Your task to perform on an android device: Search for pizza restaurants on Maps Image 0: 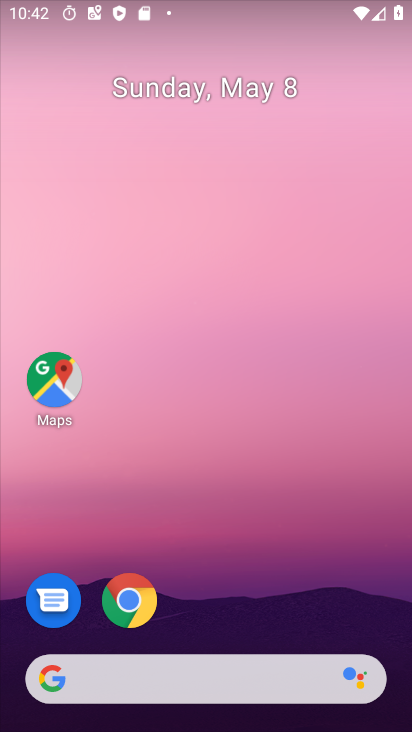
Step 0: click (25, 388)
Your task to perform on an android device: Search for pizza restaurants on Maps Image 1: 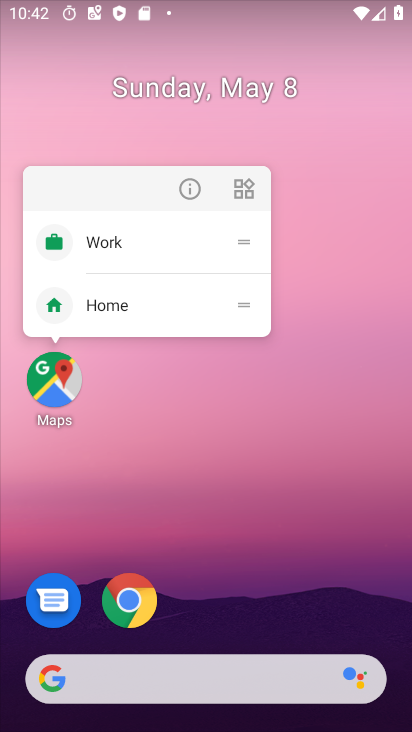
Step 1: click (190, 195)
Your task to perform on an android device: Search for pizza restaurants on Maps Image 2: 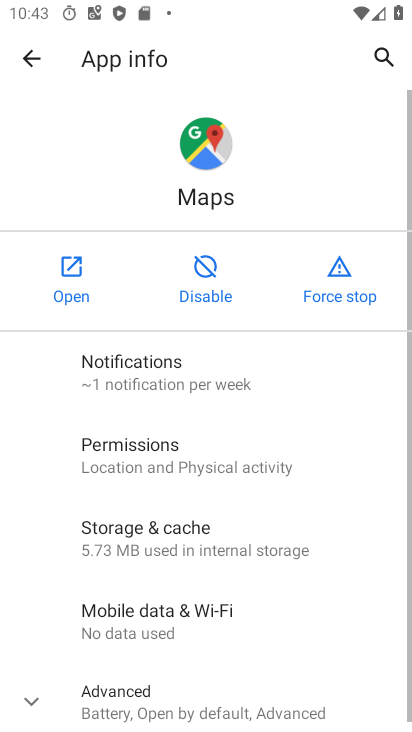
Step 2: click (78, 276)
Your task to perform on an android device: Search for pizza restaurants on Maps Image 3: 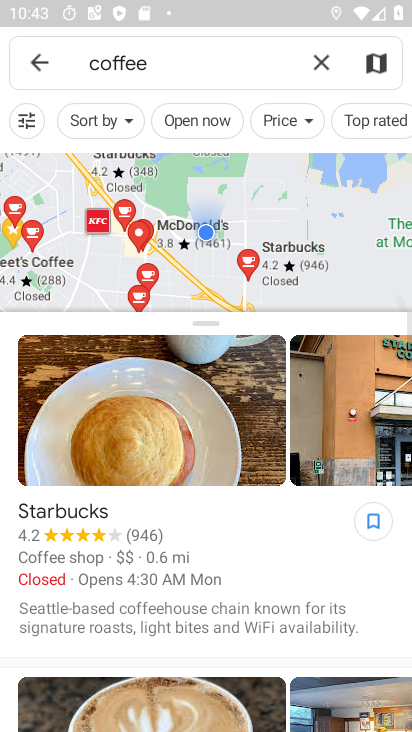
Step 3: click (314, 56)
Your task to perform on an android device: Search for pizza restaurants on Maps Image 4: 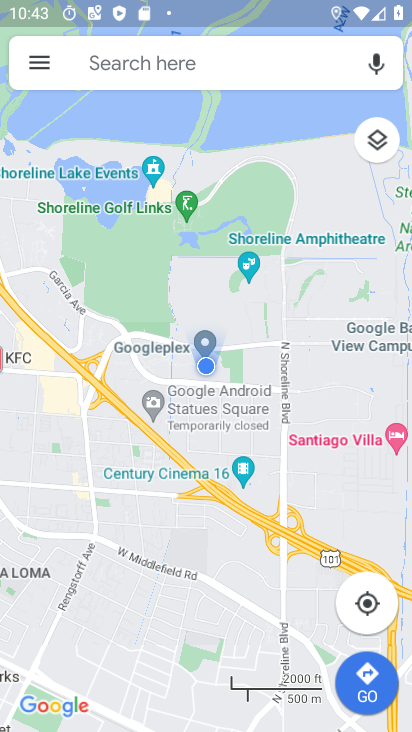
Step 4: click (180, 59)
Your task to perform on an android device: Search for pizza restaurants on Maps Image 5: 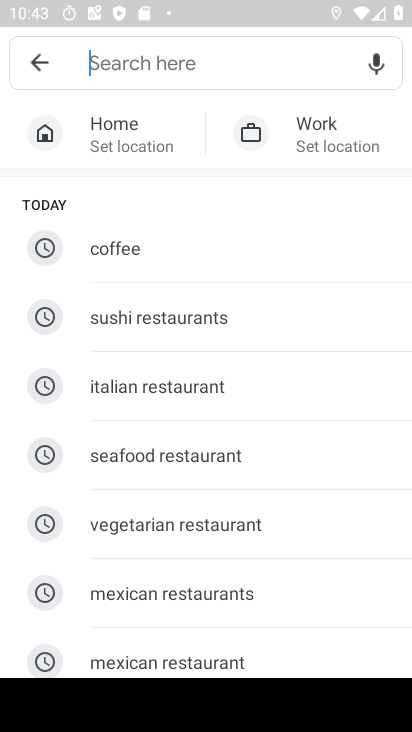
Step 5: drag from (168, 637) to (250, 276)
Your task to perform on an android device: Search for pizza restaurants on Maps Image 6: 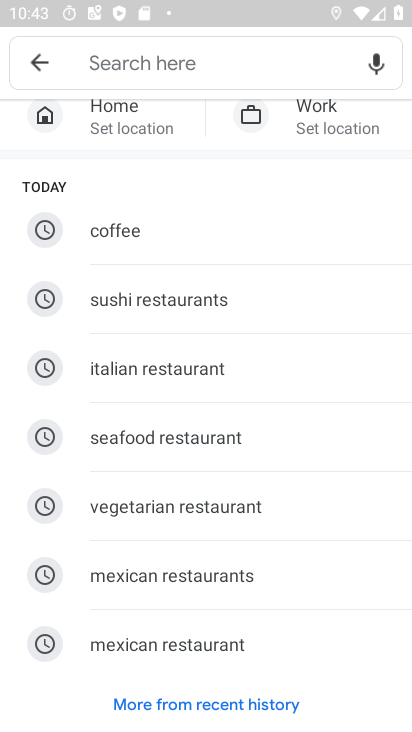
Step 6: click (234, 45)
Your task to perform on an android device: Search for pizza restaurants on Maps Image 7: 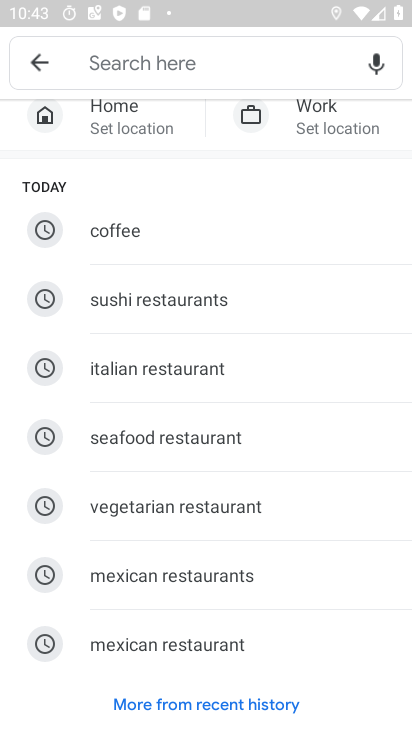
Step 7: click (233, 62)
Your task to perform on an android device: Search for pizza restaurants on Maps Image 8: 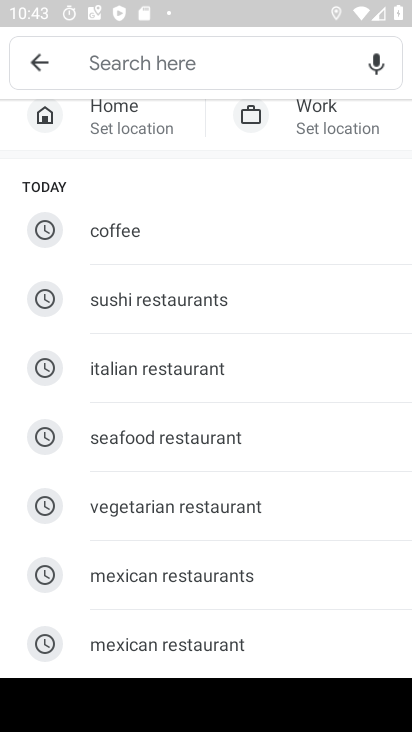
Step 8: type "pizza restaurants "
Your task to perform on an android device: Search for pizza restaurants on Maps Image 9: 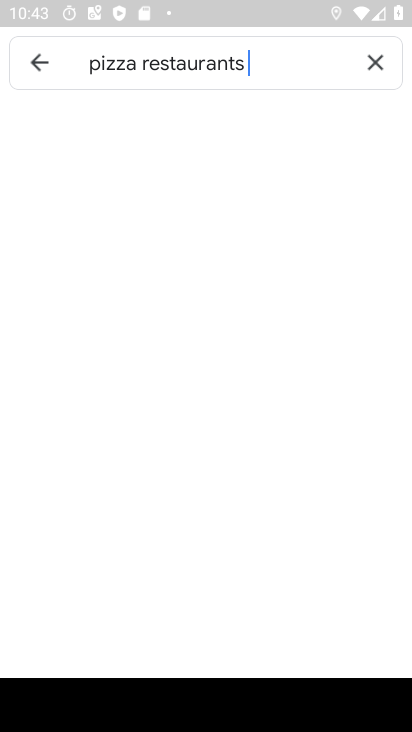
Step 9: type ""
Your task to perform on an android device: Search for pizza restaurants on Maps Image 10: 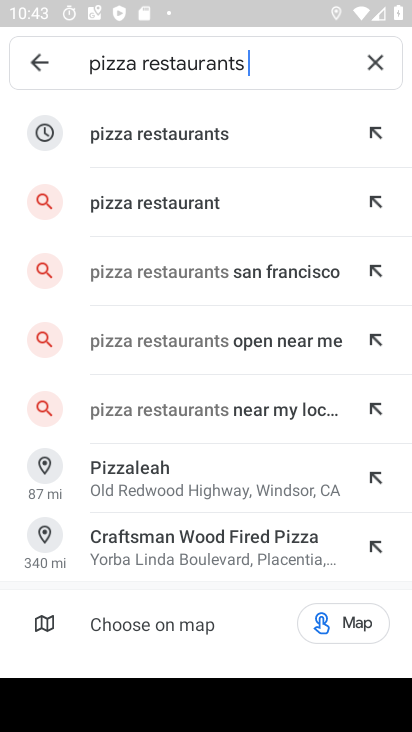
Step 10: click (149, 139)
Your task to perform on an android device: Search for pizza restaurants on Maps Image 11: 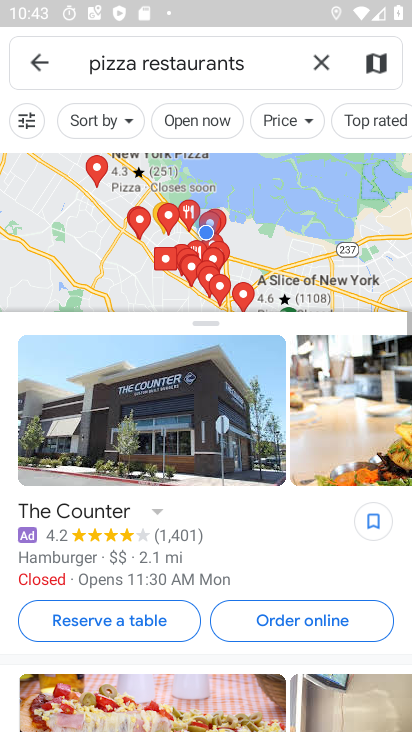
Step 11: task complete